Your task to perform on an android device: open app "ColorNote Notepad Notes" (install if not already installed) Image 0: 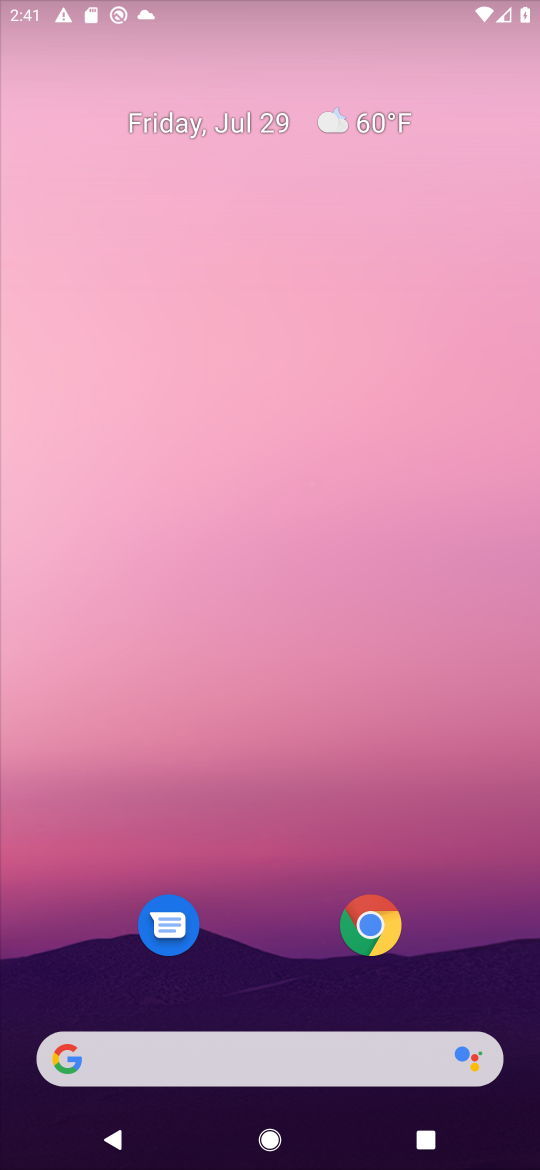
Step 0: press home button
Your task to perform on an android device: open app "ColorNote Notepad Notes" (install if not already installed) Image 1: 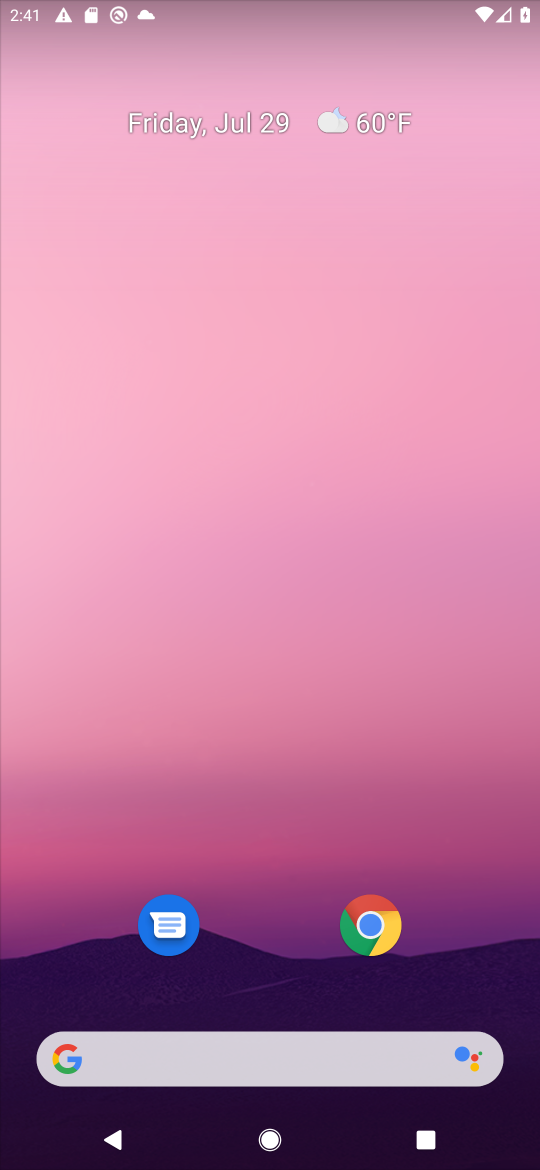
Step 1: drag from (280, 889) to (327, 4)
Your task to perform on an android device: open app "ColorNote Notepad Notes" (install if not already installed) Image 2: 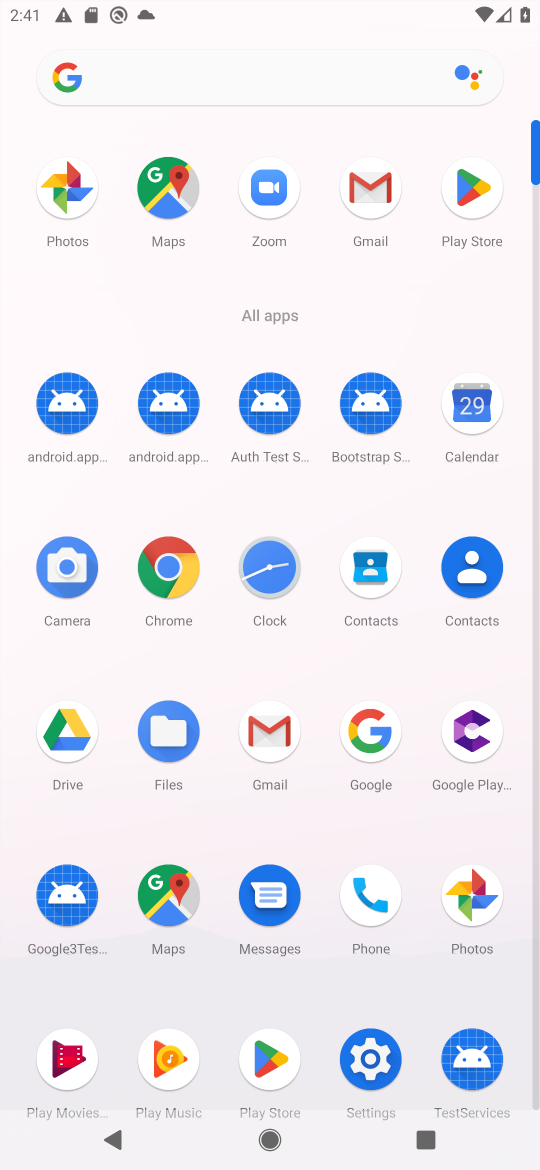
Step 2: click (474, 186)
Your task to perform on an android device: open app "ColorNote Notepad Notes" (install if not already installed) Image 3: 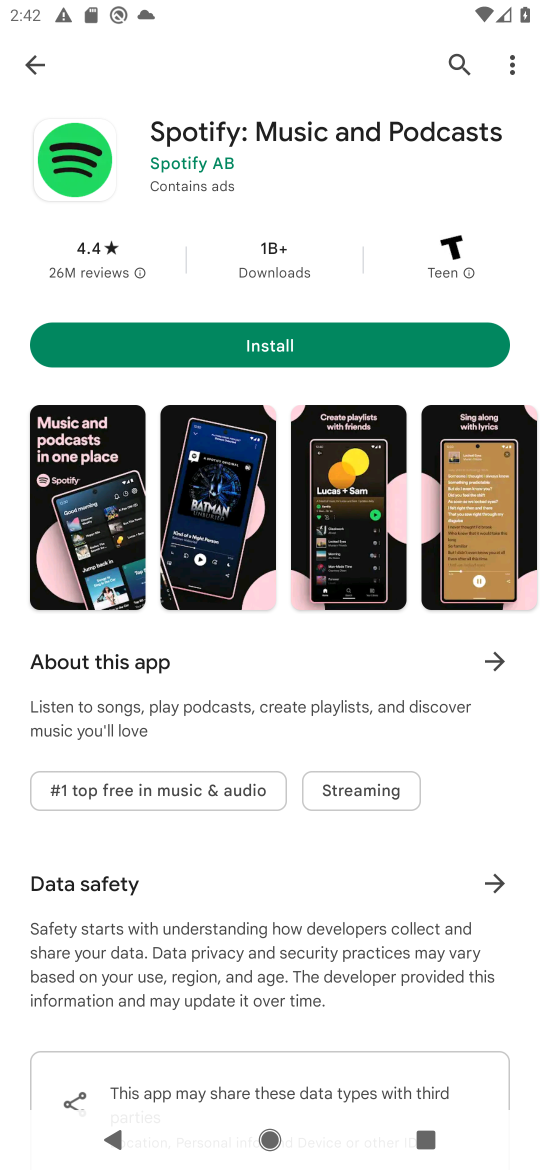
Step 3: click (453, 61)
Your task to perform on an android device: open app "ColorNote Notepad Notes" (install if not already installed) Image 4: 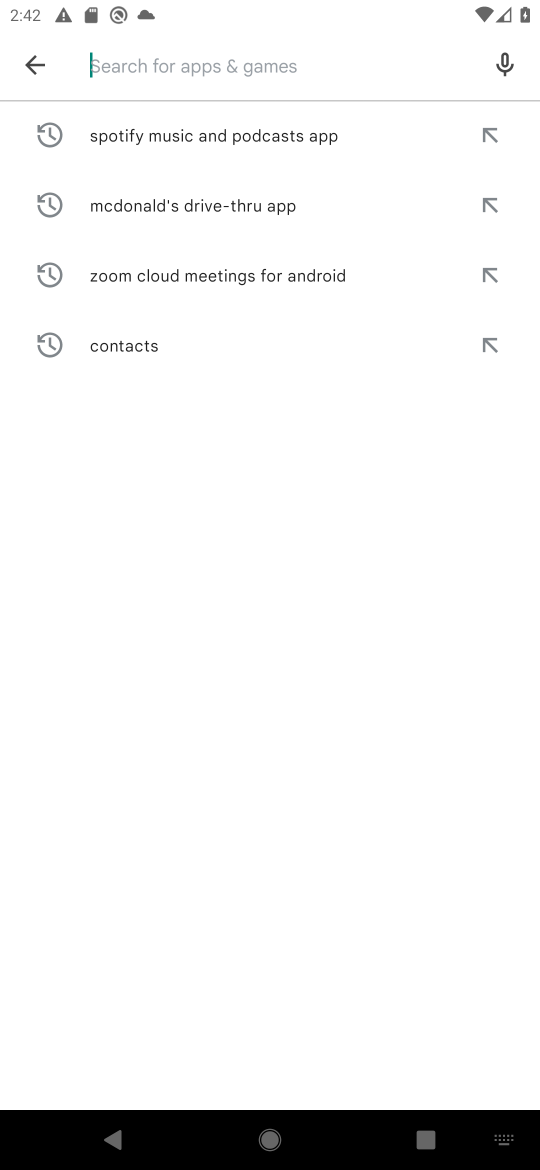
Step 4: type "ColorNote Notepad Notes"
Your task to perform on an android device: open app "ColorNote Notepad Notes" (install if not already installed) Image 5: 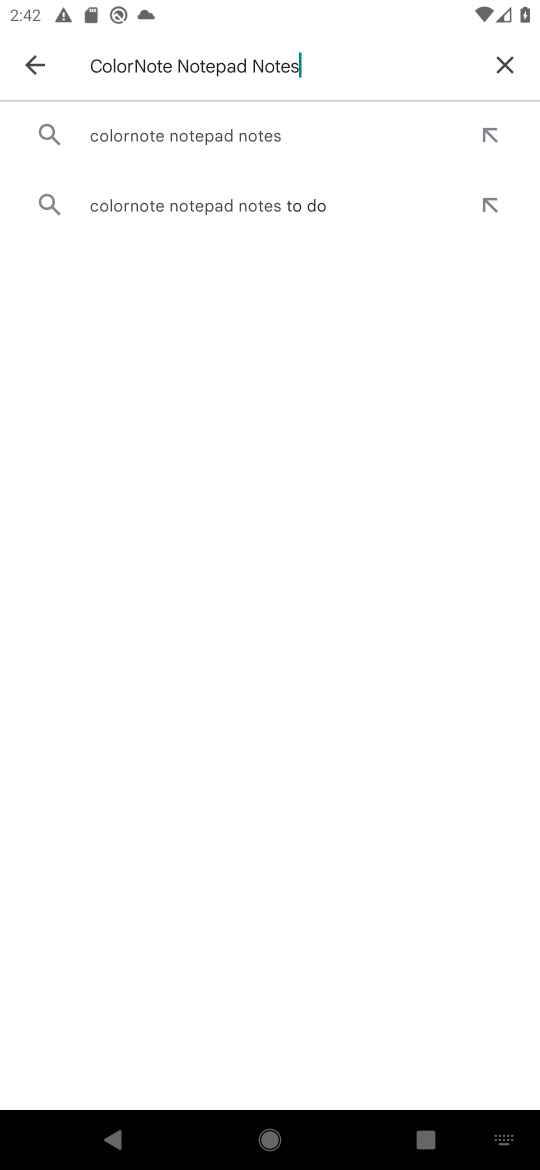
Step 5: click (173, 140)
Your task to perform on an android device: open app "ColorNote Notepad Notes" (install if not already installed) Image 6: 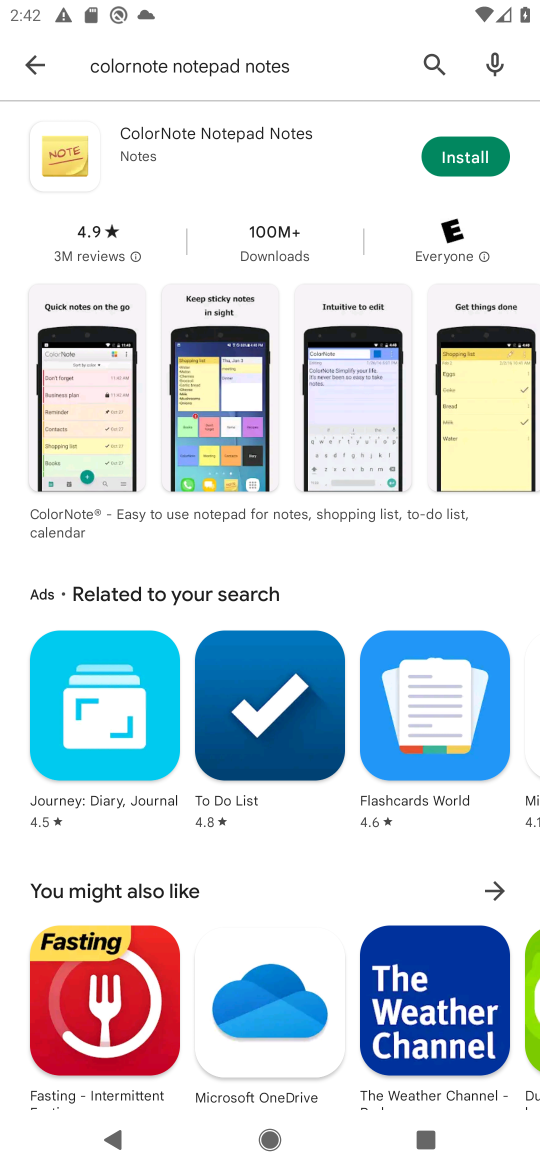
Step 6: click (453, 162)
Your task to perform on an android device: open app "ColorNote Notepad Notes" (install if not already installed) Image 7: 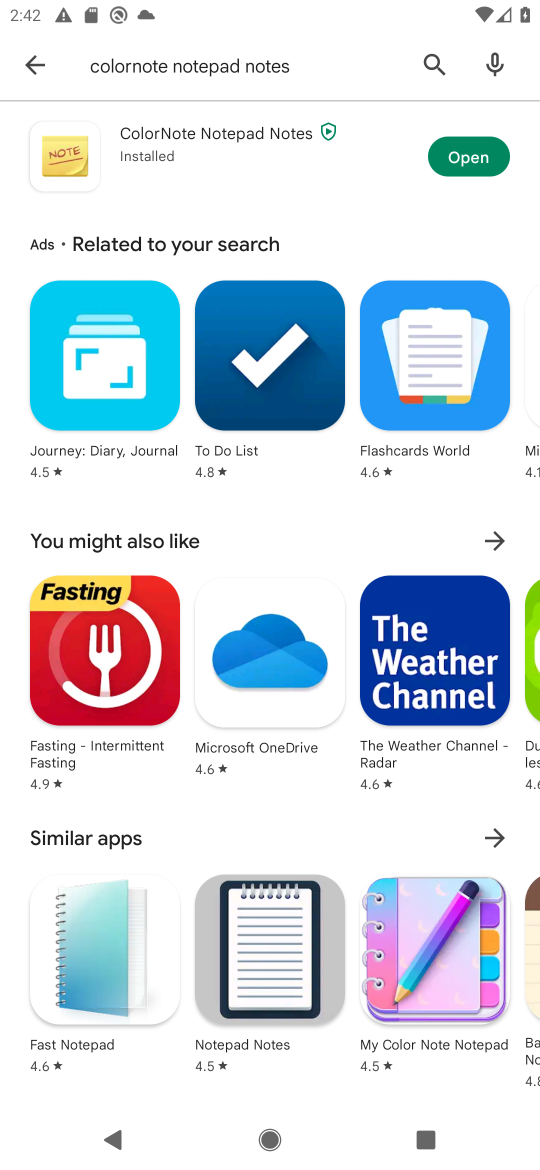
Step 7: click (463, 141)
Your task to perform on an android device: open app "ColorNote Notepad Notes" (install if not already installed) Image 8: 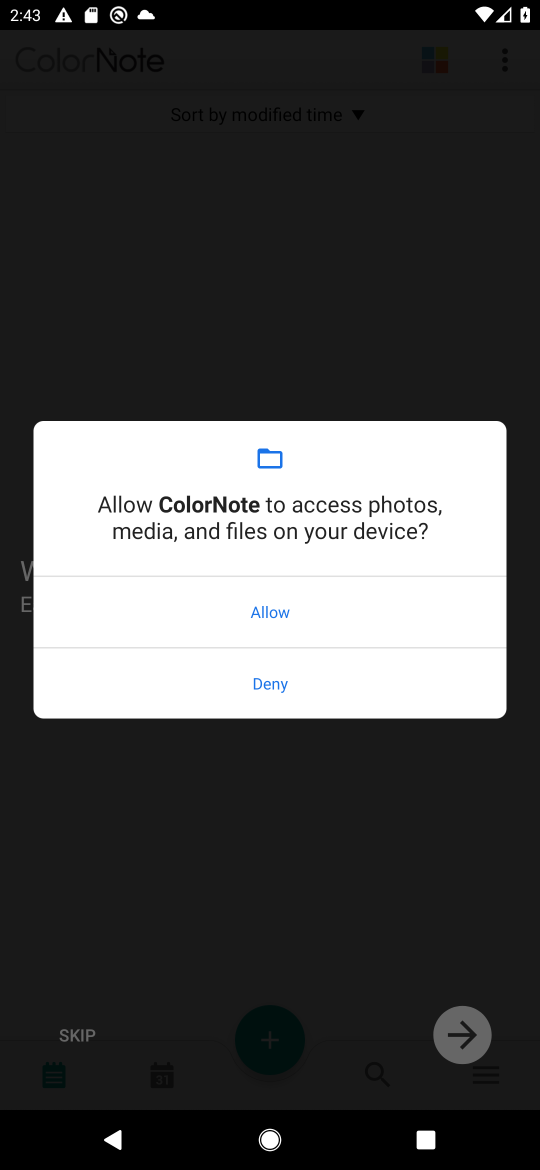
Step 8: task complete